Your task to perform on an android device: Open CNN.com Image 0: 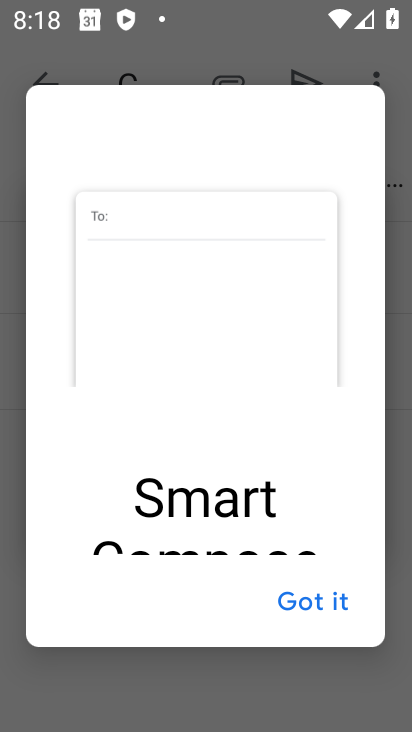
Step 0: press home button
Your task to perform on an android device: Open CNN.com Image 1: 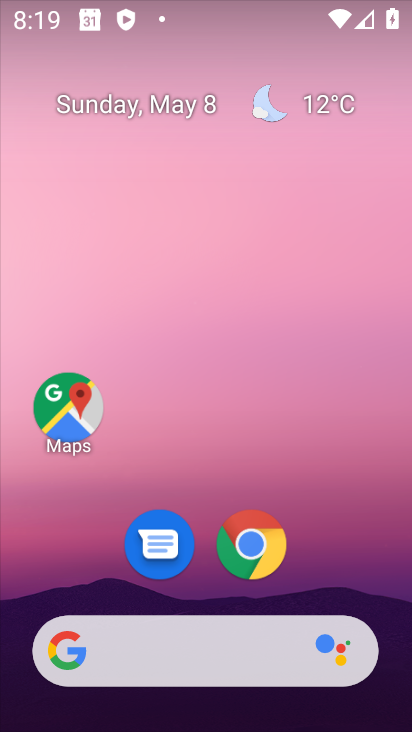
Step 1: click (254, 555)
Your task to perform on an android device: Open CNN.com Image 2: 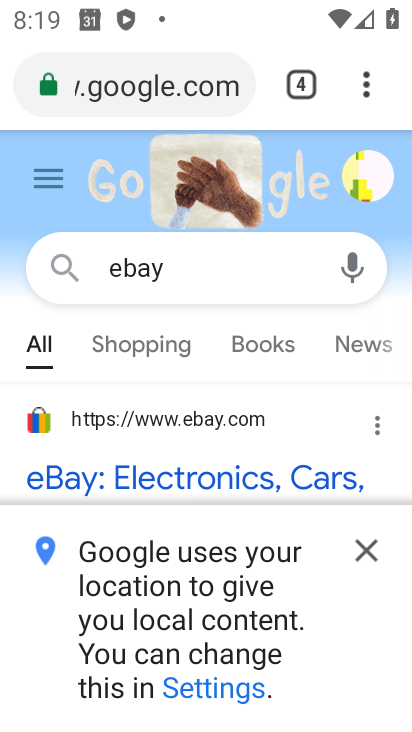
Step 2: click (368, 82)
Your task to perform on an android device: Open CNN.com Image 3: 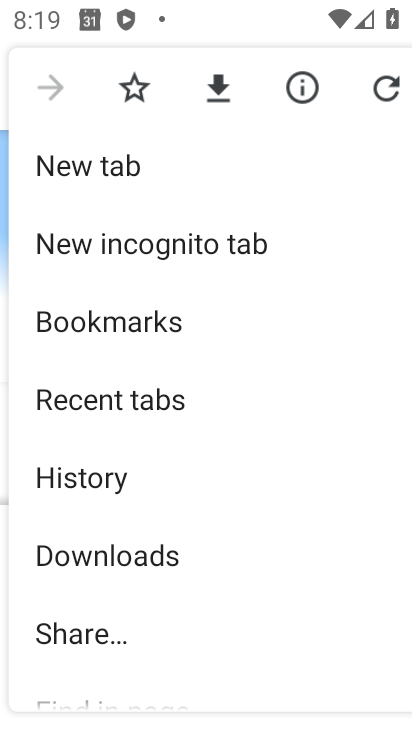
Step 3: click (112, 168)
Your task to perform on an android device: Open CNN.com Image 4: 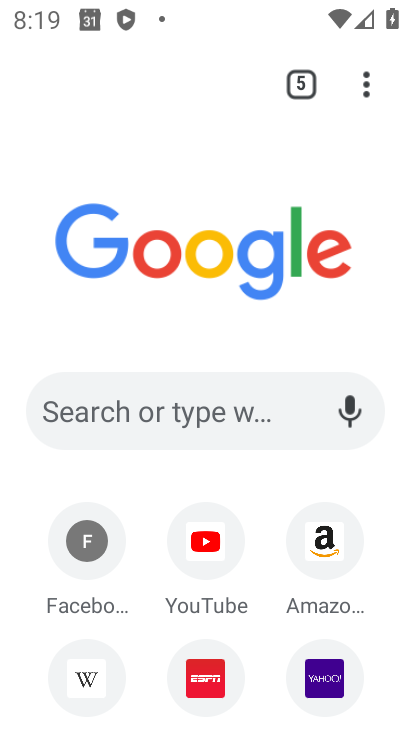
Step 4: click (144, 414)
Your task to perform on an android device: Open CNN.com Image 5: 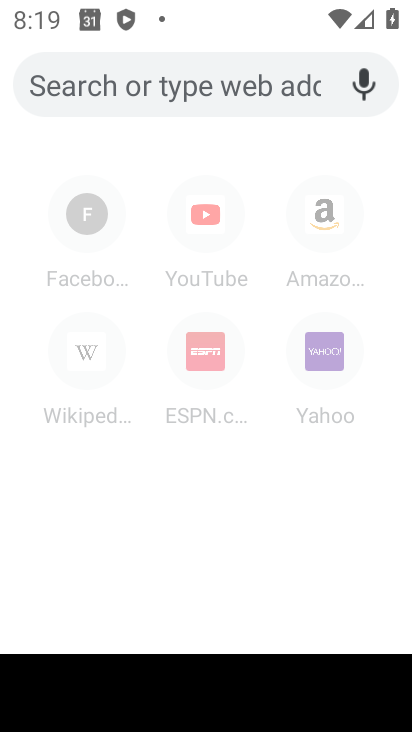
Step 5: type "cnn.com"
Your task to perform on an android device: Open CNN.com Image 6: 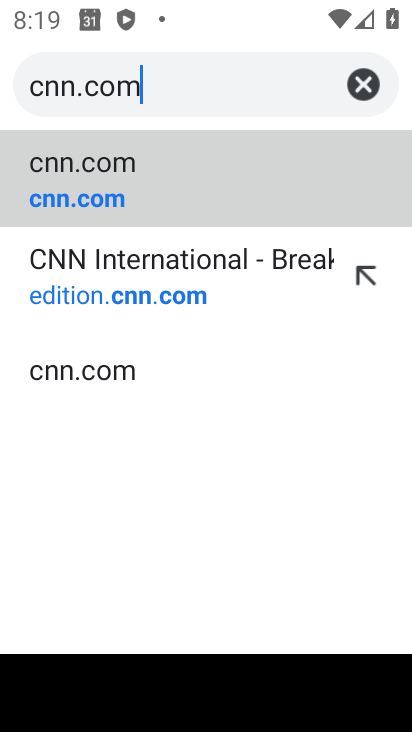
Step 6: click (132, 169)
Your task to perform on an android device: Open CNN.com Image 7: 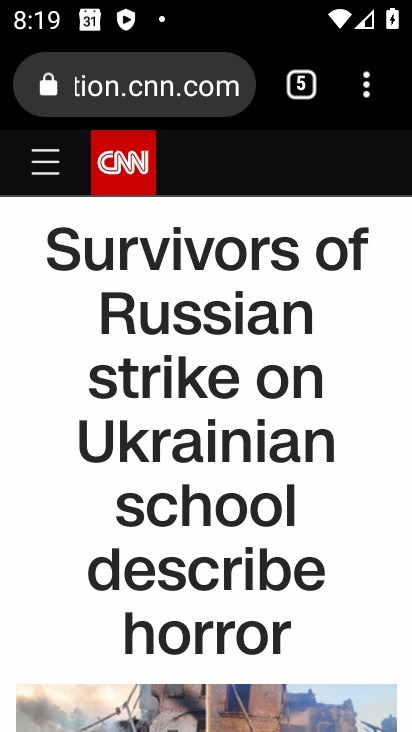
Step 7: task complete